Your task to perform on an android device: set the stopwatch Image 0: 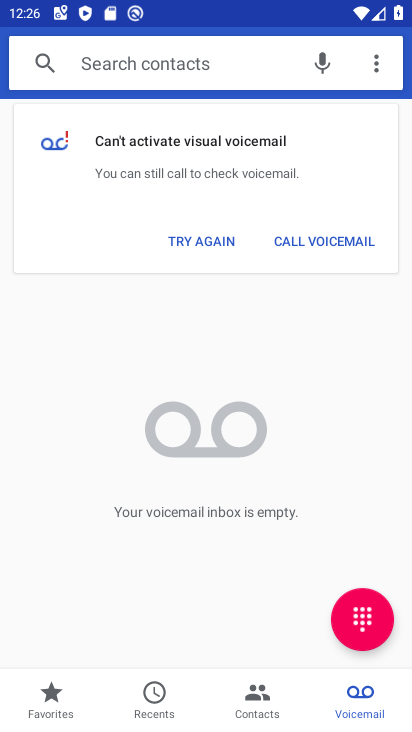
Step 0: press home button
Your task to perform on an android device: set the stopwatch Image 1: 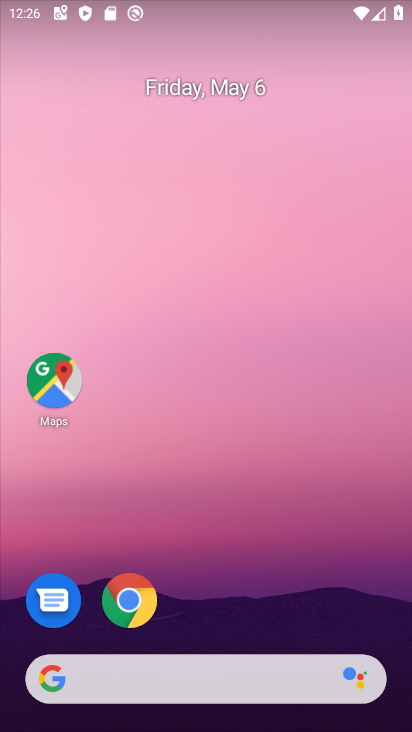
Step 1: drag from (342, 614) to (250, 130)
Your task to perform on an android device: set the stopwatch Image 2: 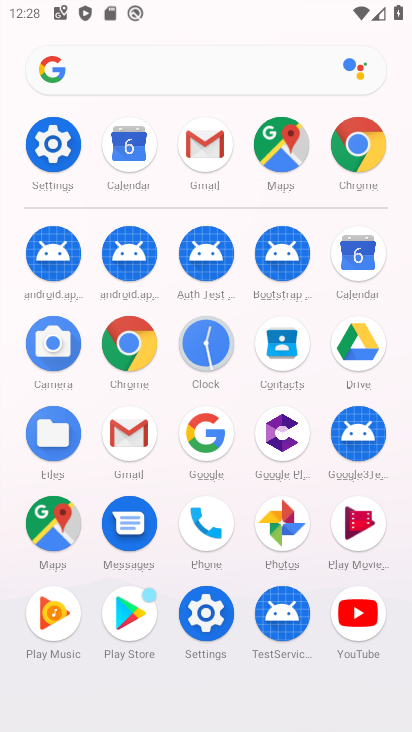
Step 2: click (211, 366)
Your task to perform on an android device: set the stopwatch Image 3: 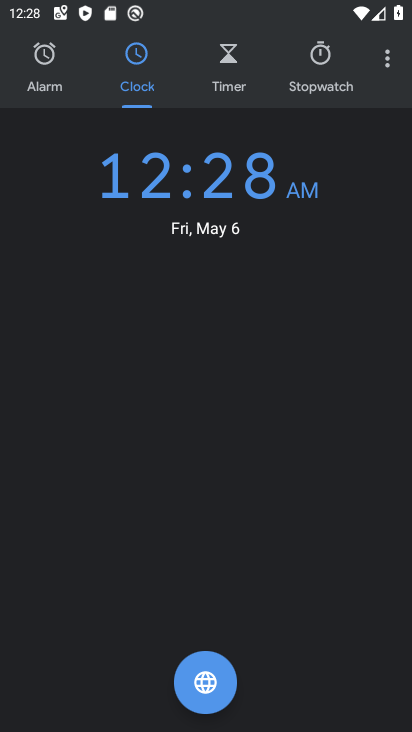
Step 3: click (319, 46)
Your task to perform on an android device: set the stopwatch Image 4: 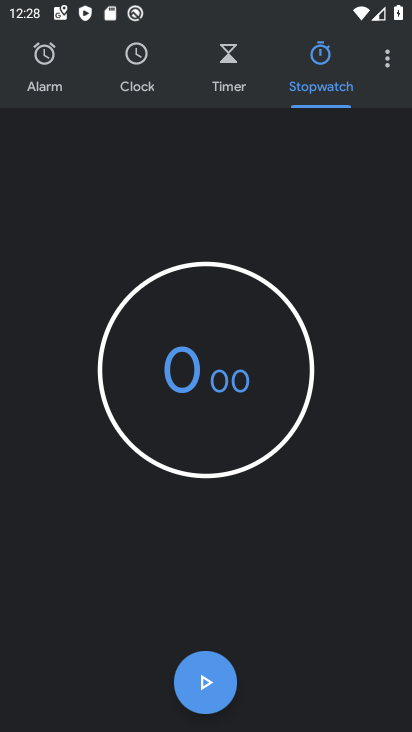
Step 4: task complete